Your task to perform on an android device: What is the news today? Image 0: 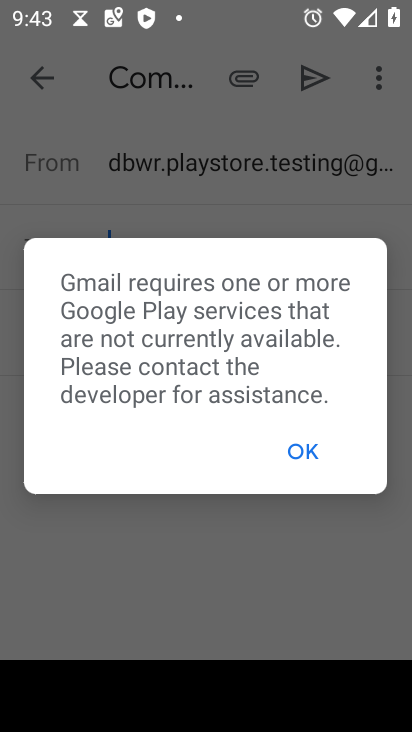
Step 0: click (304, 452)
Your task to perform on an android device: What is the news today? Image 1: 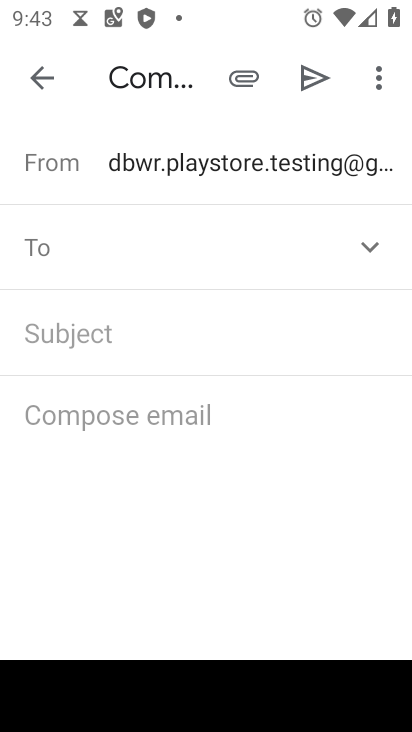
Step 1: click (38, 64)
Your task to perform on an android device: What is the news today? Image 2: 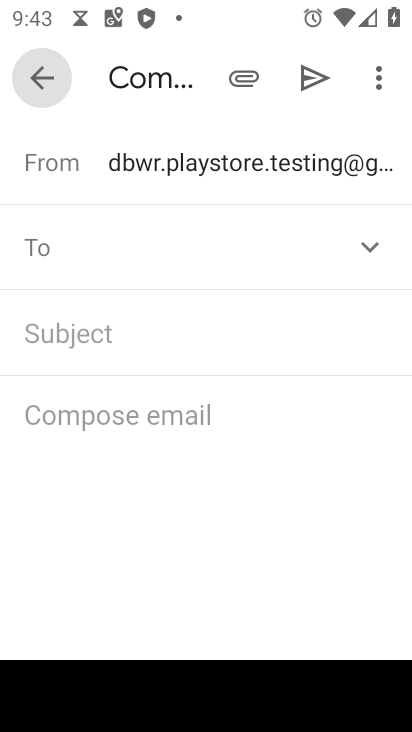
Step 2: click (40, 64)
Your task to perform on an android device: What is the news today? Image 3: 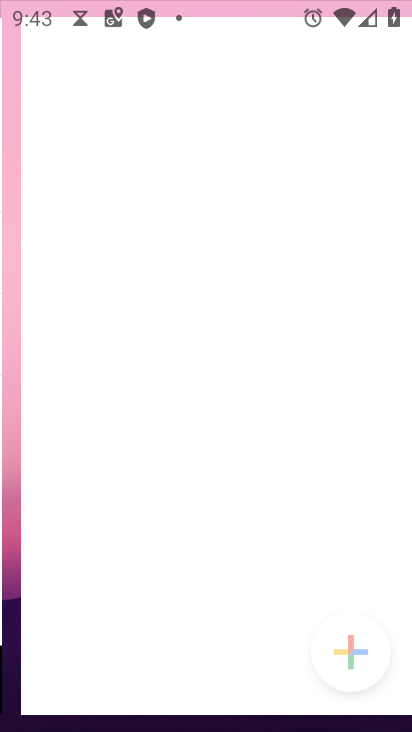
Step 3: click (41, 65)
Your task to perform on an android device: What is the news today? Image 4: 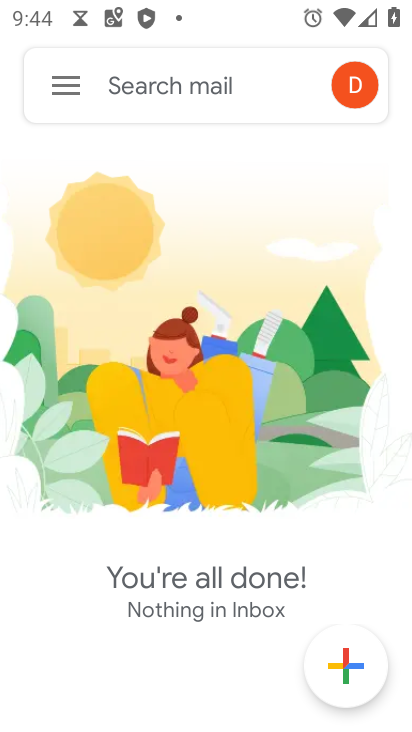
Step 4: press home button
Your task to perform on an android device: What is the news today? Image 5: 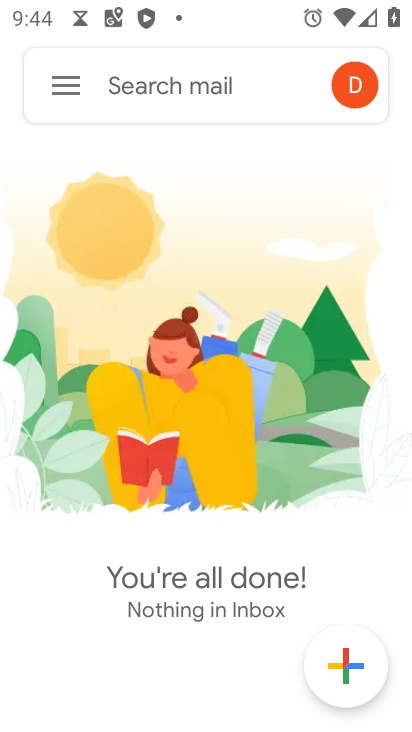
Step 5: press home button
Your task to perform on an android device: What is the news today? Image 6: 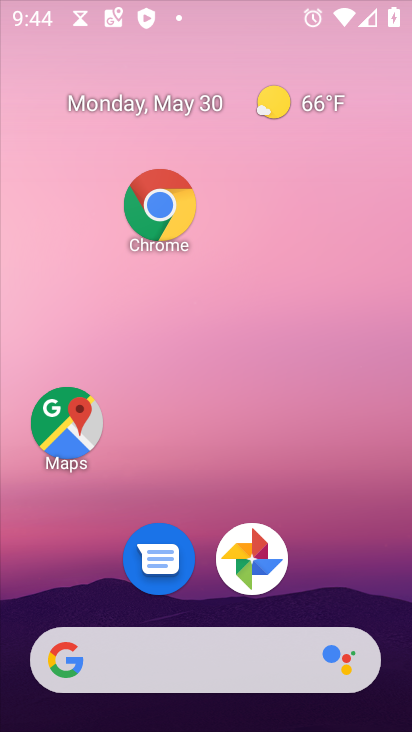
Step 6: press home button
Your task to perform on an android device: What is the news today? Image 7: 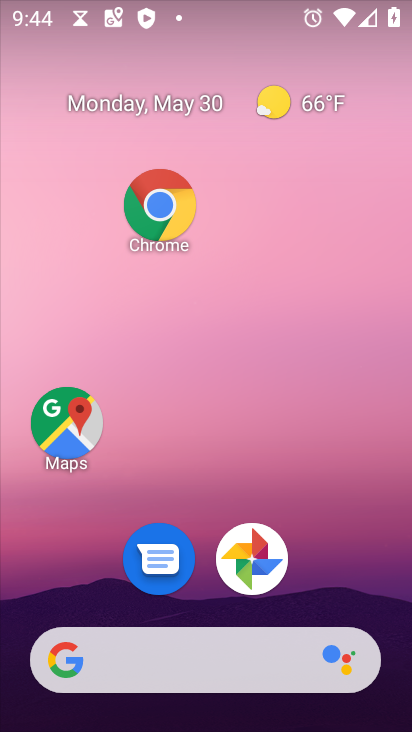
Step 7: drag from (1, 199) to (341, 493)
Your task to perform on an android device: What is the news today? Image 8: 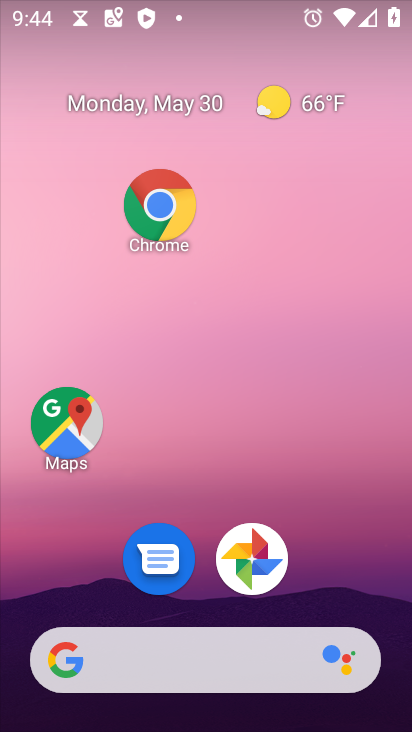
Step 8: drag from (41, 227) to (396, 443)
Your task to perform on an android device: What is the news today? Image 9: 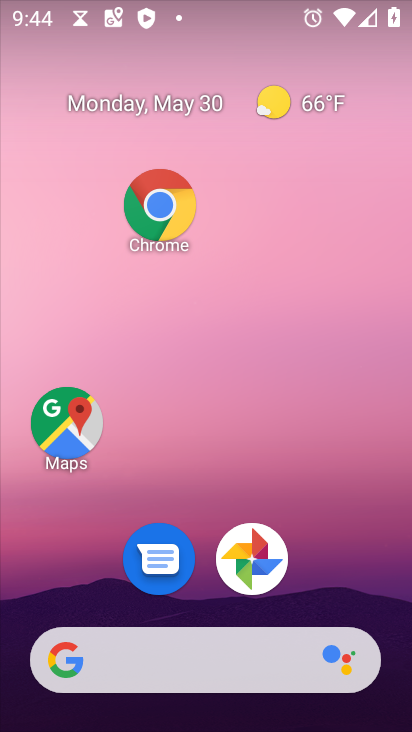
Step 9: drag from (113, 240) to (400, 457)
Your task to perform on an android device: What is the news today? Image 10: 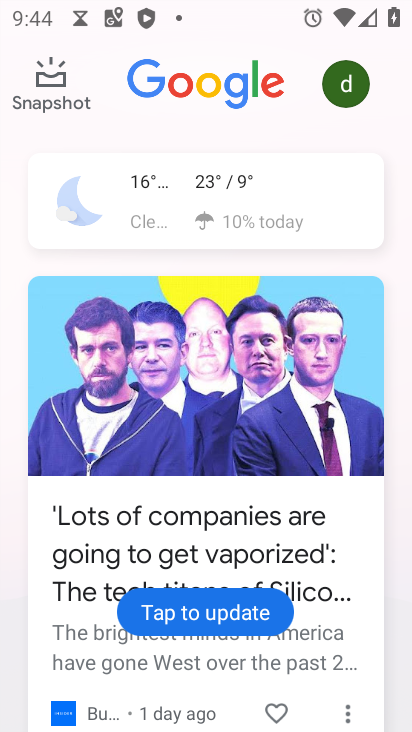
Step 10: click (187, 194)
Your task to perform on an android device: What is the news today? Image 11: 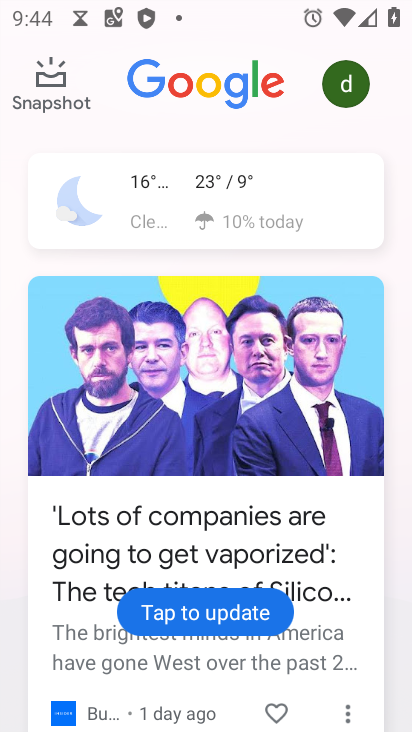
Step 11: click (187, 194)
Your task to perform on an android device: What is the news today? Image 12: 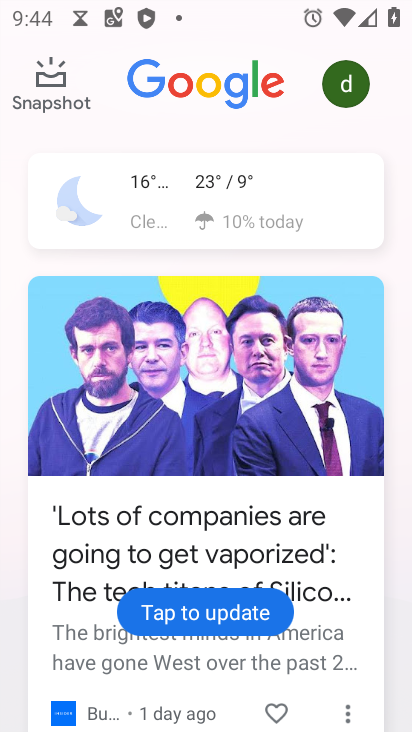
Step 12: click (188, 195)
Your task to perform on an android device: What is the news today? Image 13: 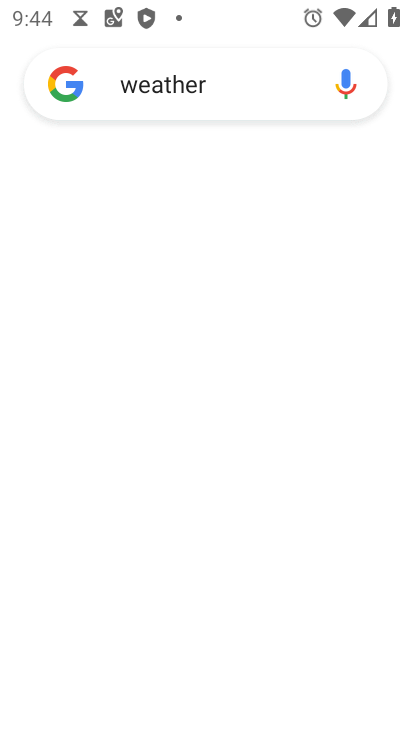
Step 13: click (188, 195)
Your task to perform on an android device: What is the news today? Image 14: 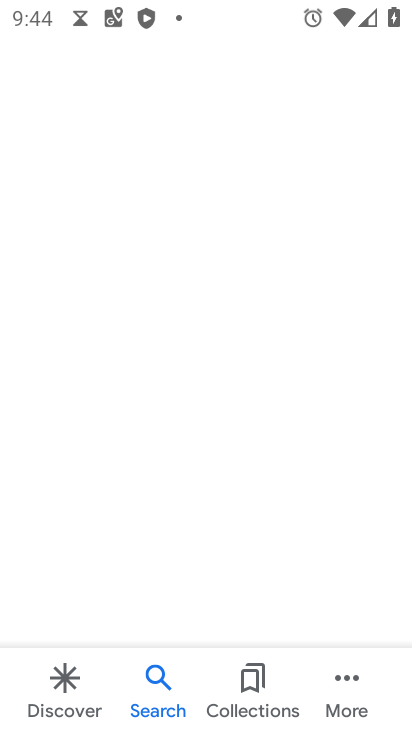
Step 14: click (193, 194)
Your task to perform on an android device: What is the news today? Image 15: 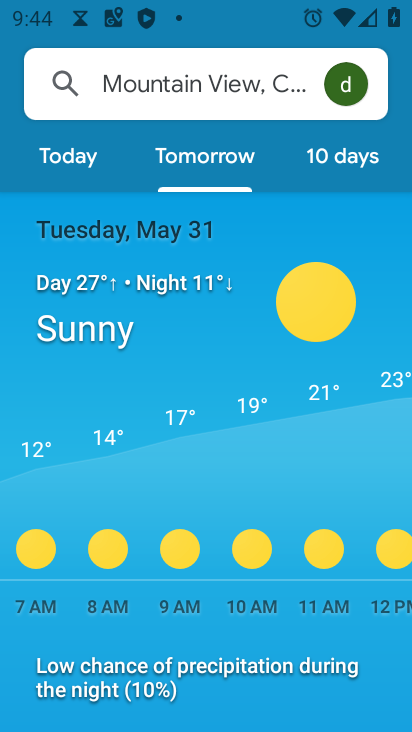
Step 15: task complete